Your task to perform on an android device: turn on bluetooth scan Image 0: 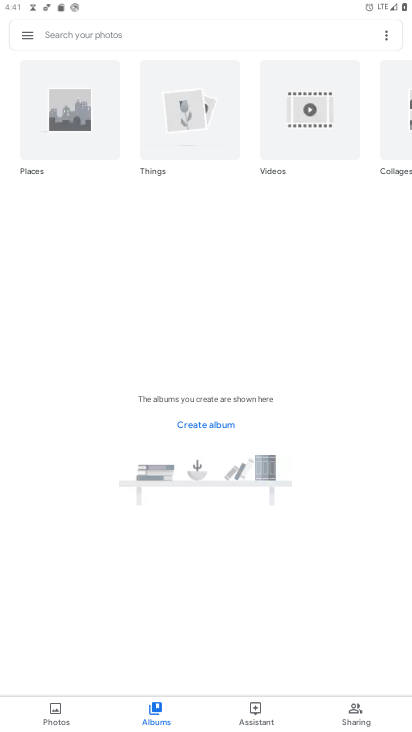
Step 0: press home button
Your task to perform on an android device: turn on bluetooth scan Image 1: 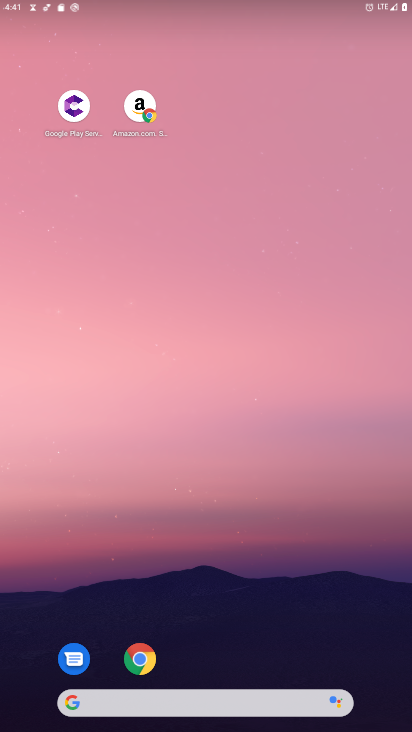
Step 1: drag from (257, 695) to (286, 11)
Your task to perform on an android device: turn on bluetooth scan Image 2: 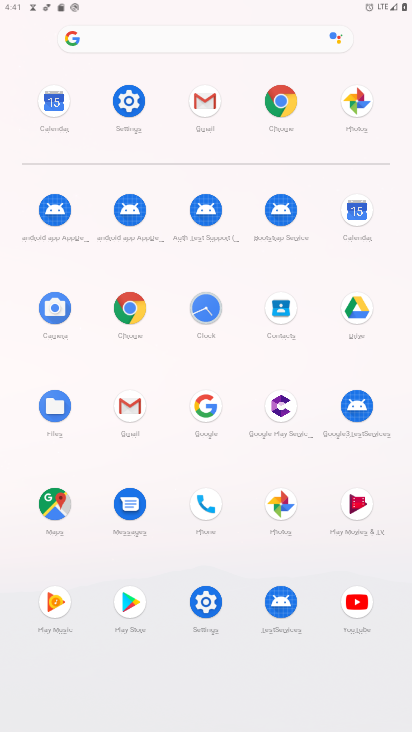
Step 2: click (134, 95)
Your task to perform on an android device: turn on bluetooth scan Image 3: 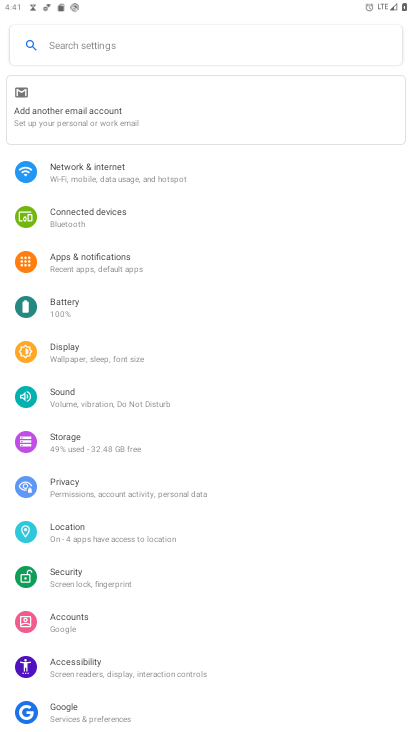
Step 3: click (114, 531)
Your task to perform on an android device: turn on bluetooth scan Image 4: 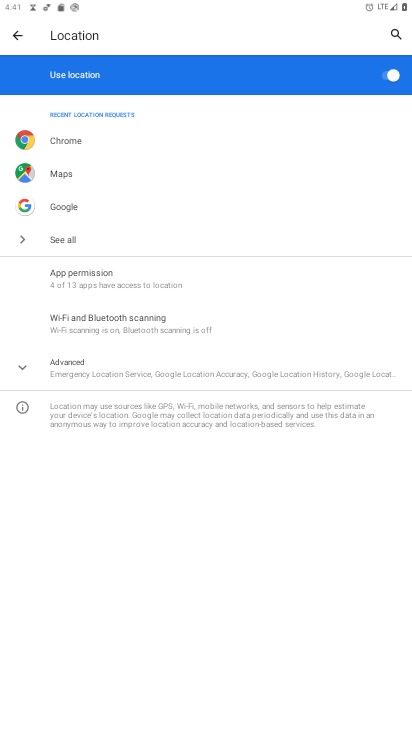
Step 4: click (104, 324)
Your task to perform on an android device: turn on bluetooth scan Image 5: 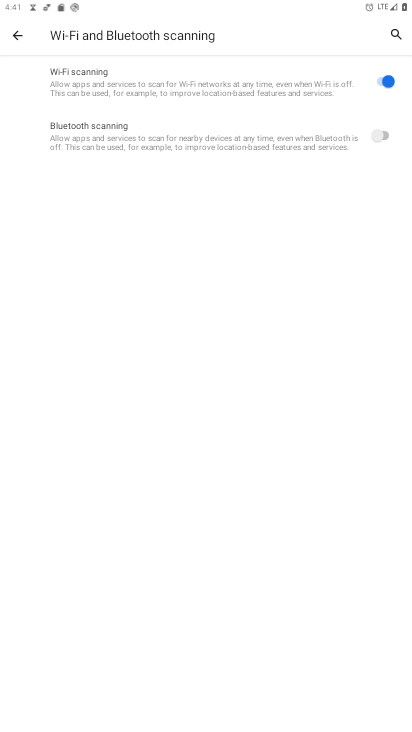
Step 5: click (378, 139)
Your task to perform on an android device: turn on bluetooth scan Image 6: 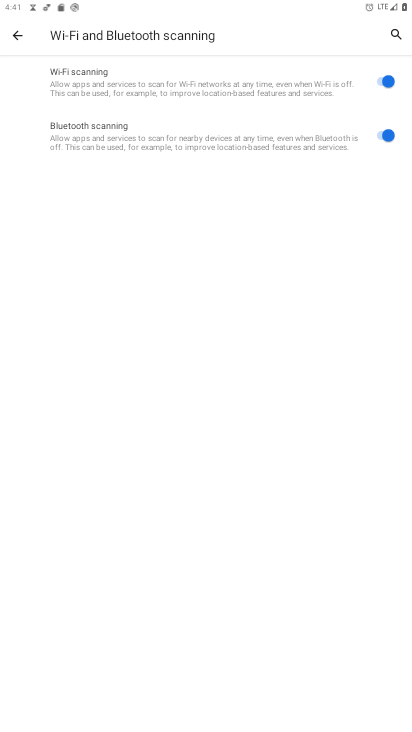
Step 6: task complete